Your task to perform on an android device: open chrome and create a bookmark for the current page Image 0: 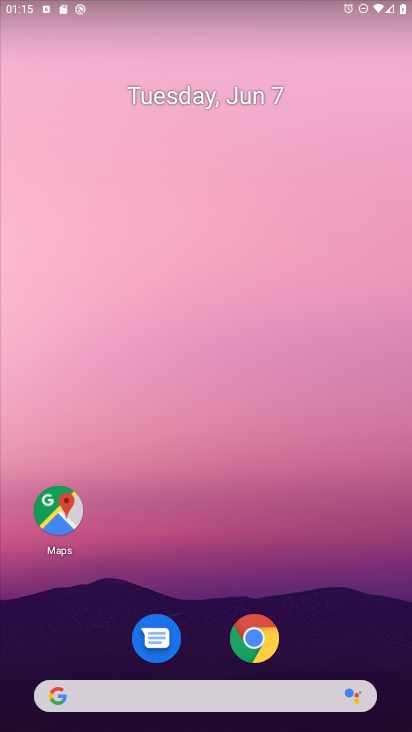
Step 0: drag from (255, 727) to (174, 256)
Your task to perform on an android device: open chrome and create a bookmark for the current page Image 1: 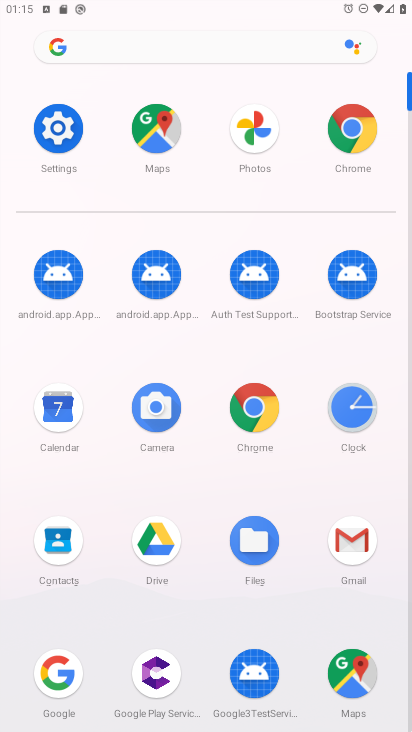
Step 1: click (362, 141)
Your task to perform on an android device: open chrome and create a bookmark for the current page Image 2: 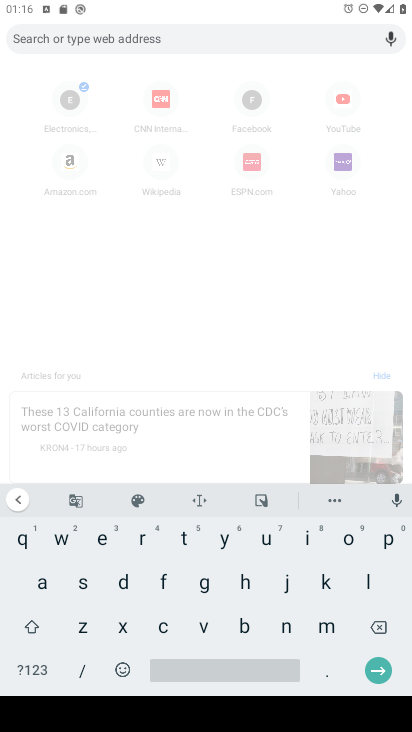
Step 2: press back button
Your task to perform on an android device: open chrome and create a bookmark for the current page Image 3: 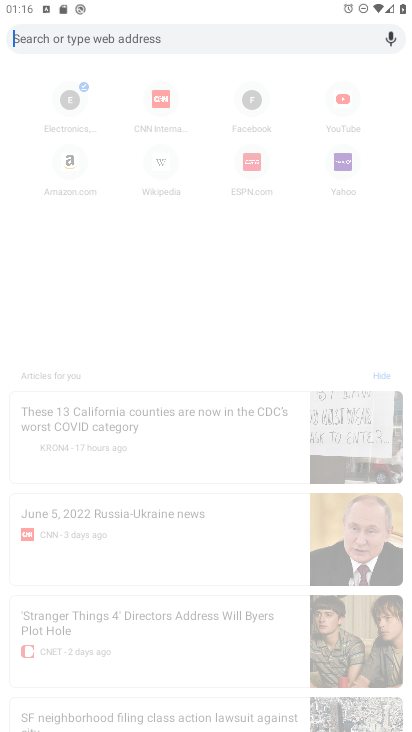
Step 3: press back button
Your task to perform on an android device: open chrome and create a bookmark for the current page Image 4: 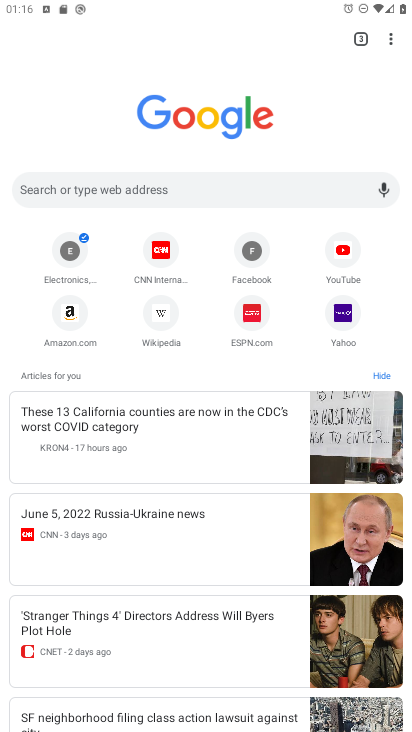
Step 4: click (399, 44)
Your task to perform on an android device: open chrome and create a bookmark for the current page Image 5: 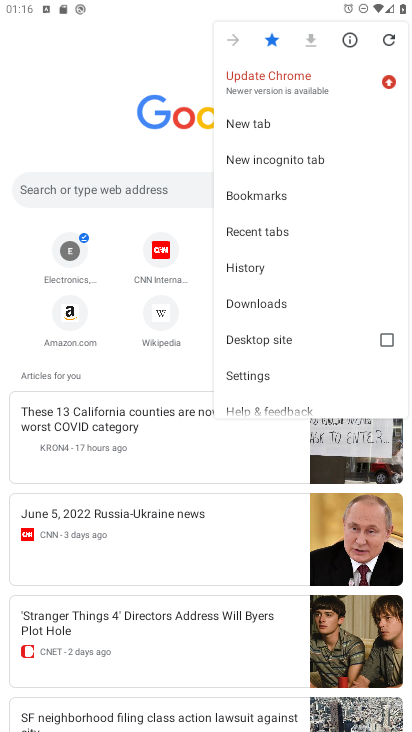
Step 5: click (253, 199)
Your task to perform on an android device: open chrome and create a bookmark for the current page Image 6: 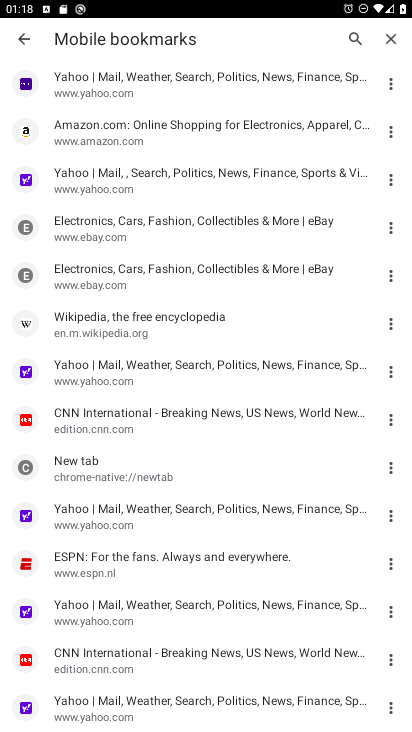
Step 6: task complete